Your task to perform on an android device: change the clock display to analog Image 0: 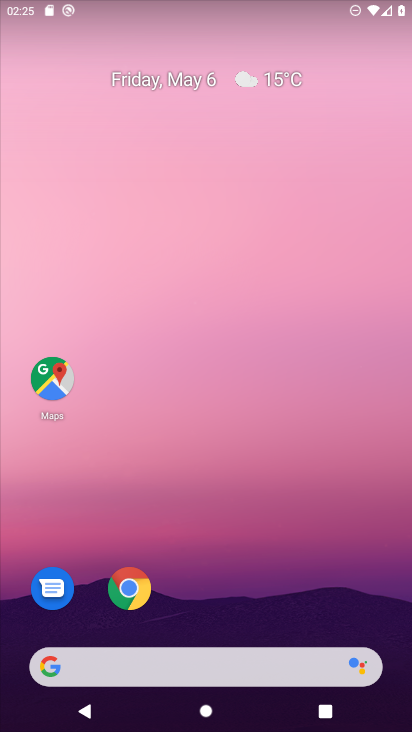
Step 0: drag from (258, 636) to (91, 12)
Your task to perform on an android device: change the clock display to analog Image 1: 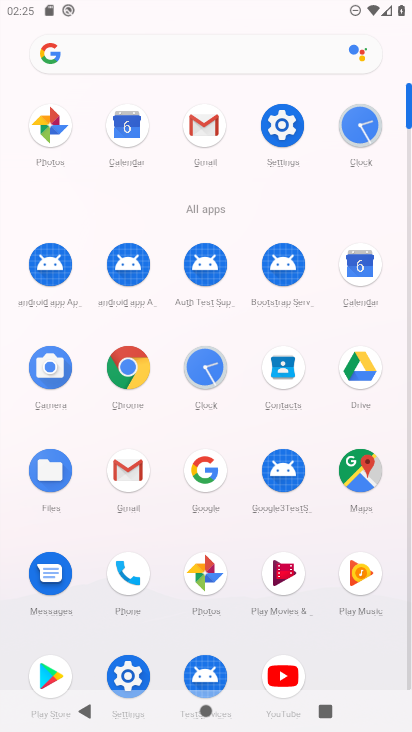
Step 1: click (211, 371)
Your task to perform on an android device: change the clock display to analog Image 2: 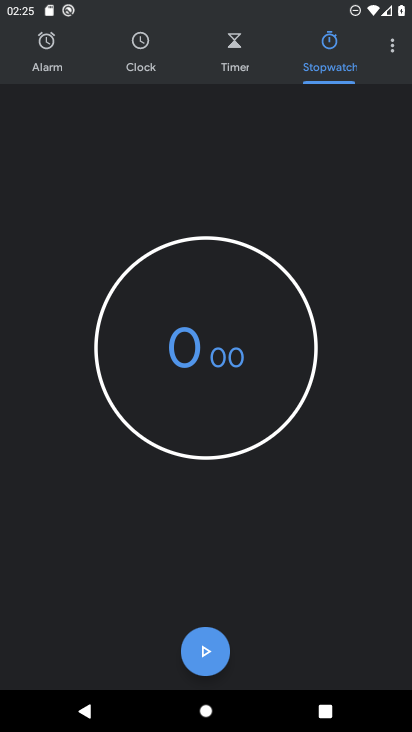
Step 2: click (395, 49)
Your task to perform on an android device: change the clock display to analog Image 3: 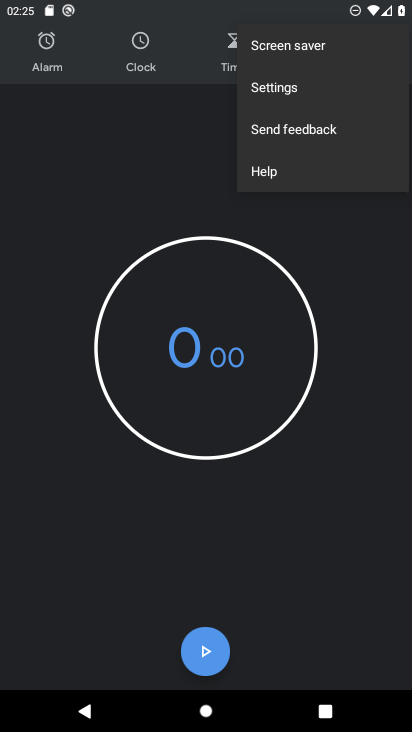
Step 3: click (289, 88)
Your task to perform on an android device: change the clock display to analog Image 4: 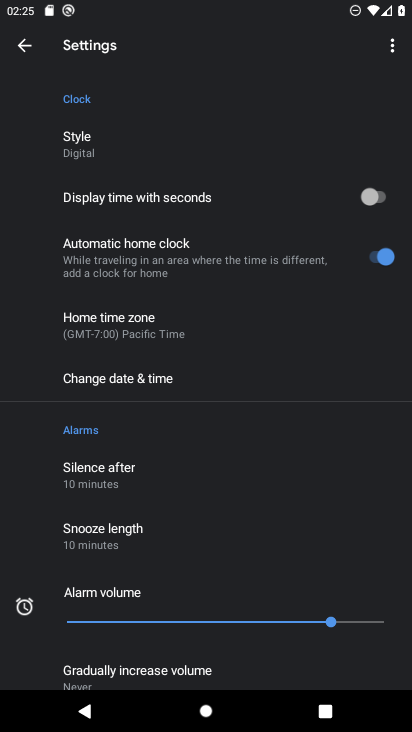
Step 4: click (84, 152)
Your task to perform on an android device: change the clock display to analog Image 5: 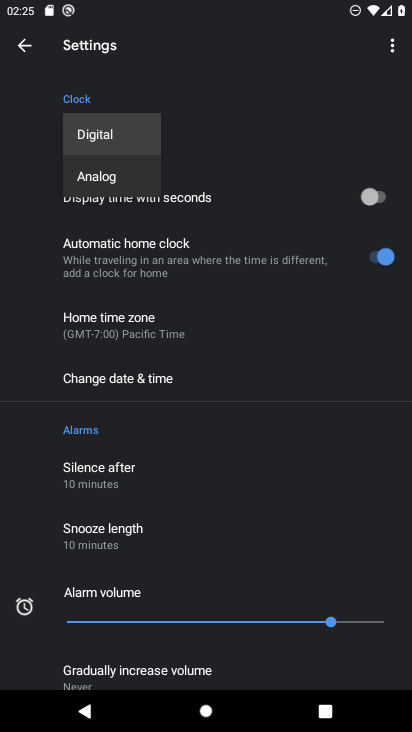
Step 5: click (93, 181)
Your task to perform on an android device: change the clock display to analog Image 6: 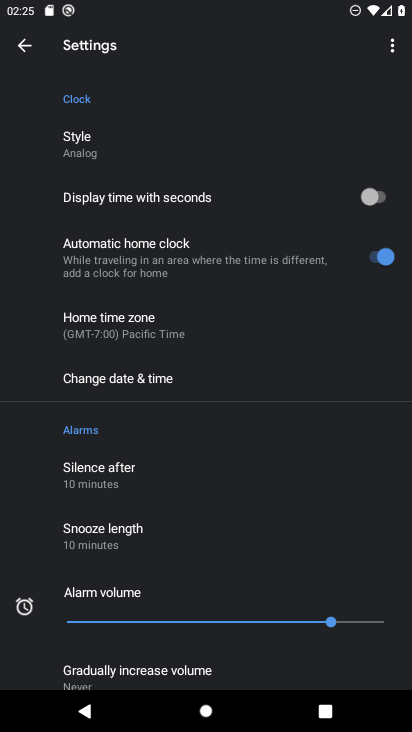
Step 6: task complete